Your task to perform on an android device: Open eBay Image 0: 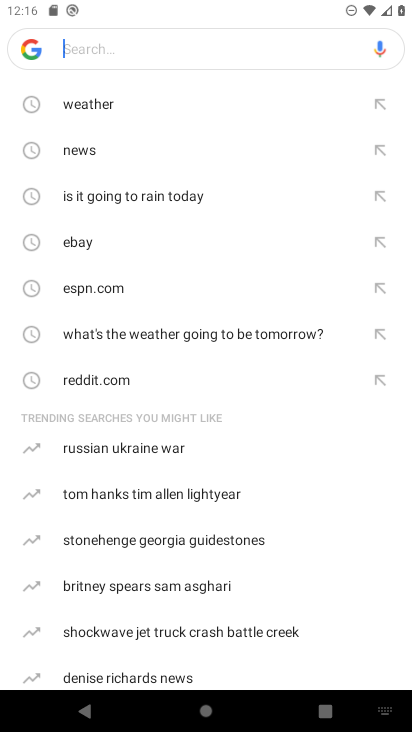
Step 0: press home button
Your task to perform on an android device: Open eBay Image 1: 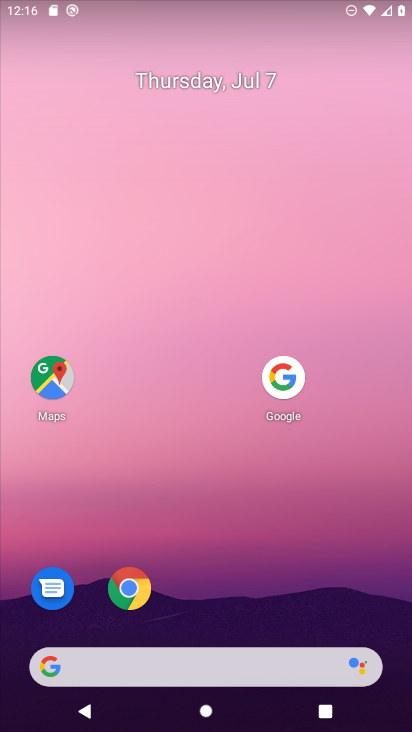
Step 1: click (131, 586)
Your task to perform on an android device: Open eBay Image 2: 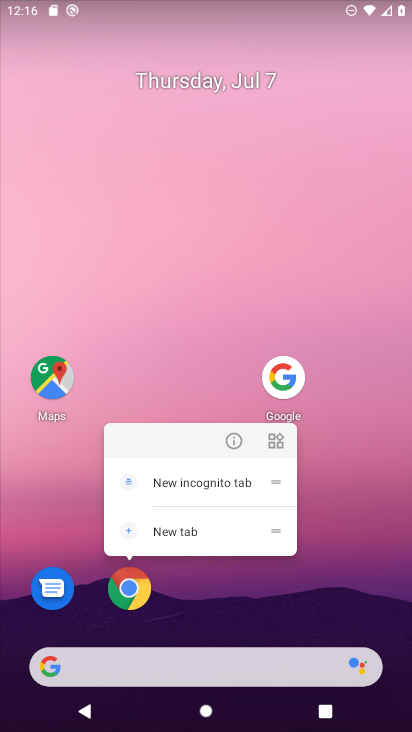
Step 2: click (131, 588)
Your task to perform on an android device: Open eBay Image 3: 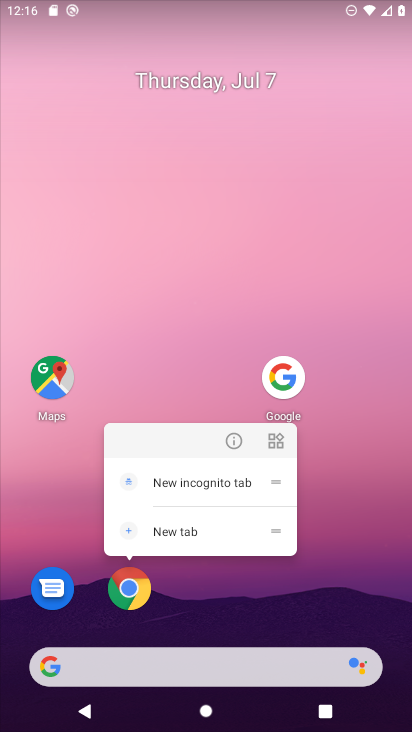
Step 3: click (125, 596)
Your task to perform on an android device: Open eBay Image 4: 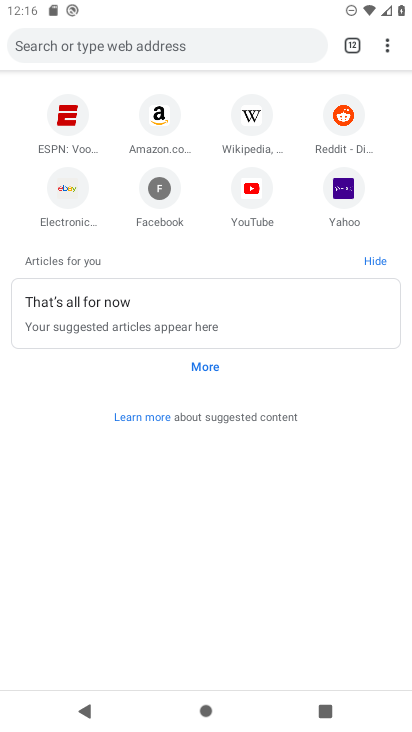
Step 4: click (153, 44)
Your task to perform on an android device: Open eBay Image 5: 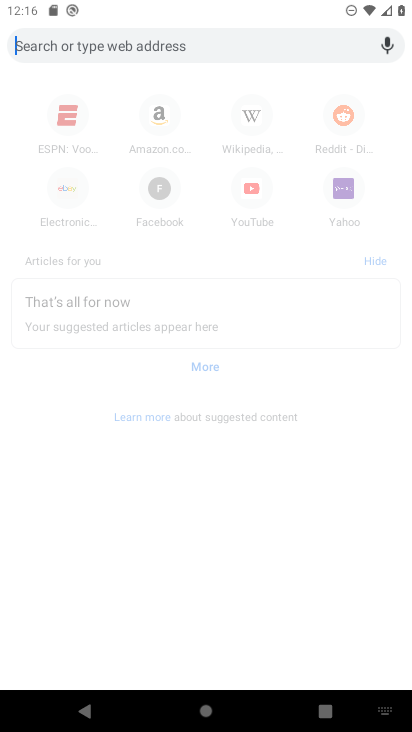
Step 5: type "ebay"
Your task to perform on an android device: Open eBay Image 6: 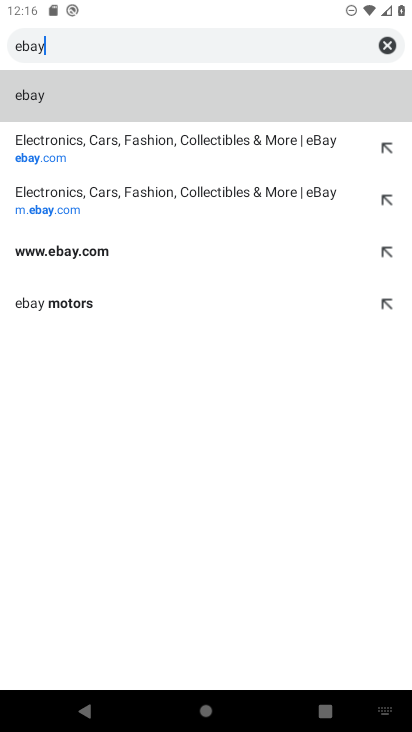
Step 6: click (65, 97)
Your task to perform on an android device: Open eBay Image 7: 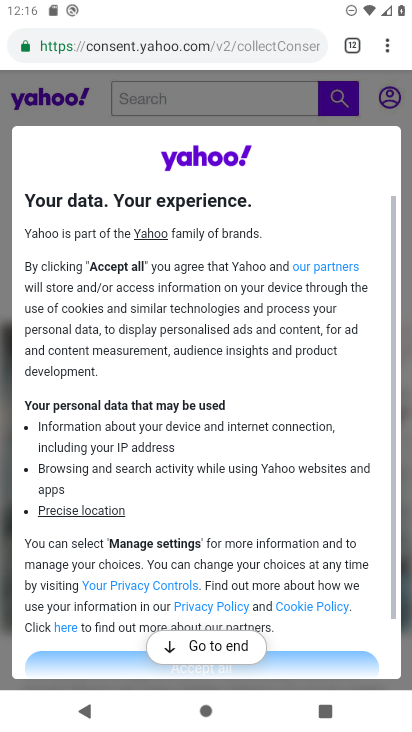
Step 7: click (219, 638)
Your task to perform on an android device: Open eBay Image 8: 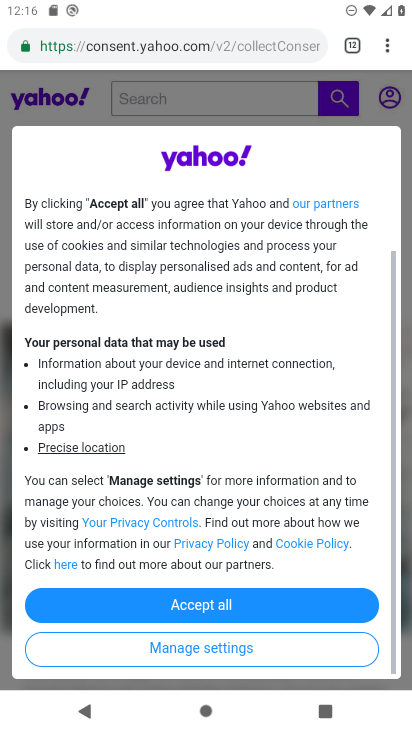
Step 8: click (210, 607)
Your task to perform on an android device: Open eBay Image 9: 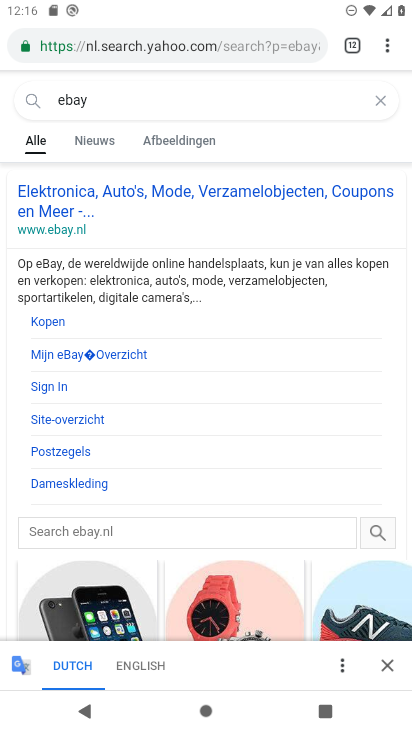
Step 9: click (145, 666)
Your task to perform on an android device: Open eBay Image 10: 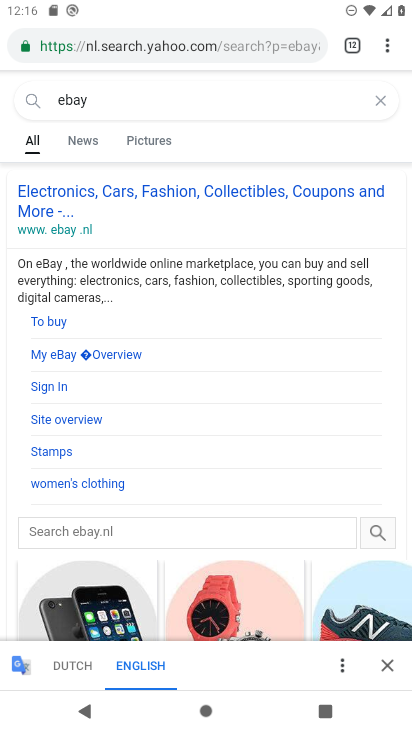
Step 10: click (178, 187)
Your task to perform on an android device: Open eBay Image 11: 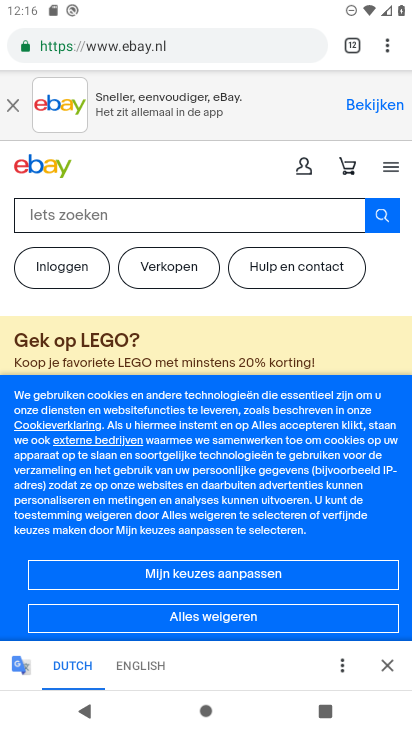
Step 11: click (142, 666)
Your task to perform on an android device: Open eBay Image 12: 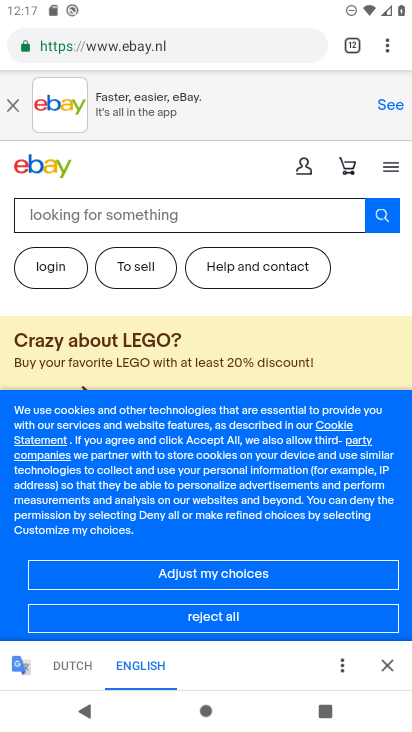
Step 12: task complete